Your task to perform on an android device: Is it going to rain this weekend? Image 0: 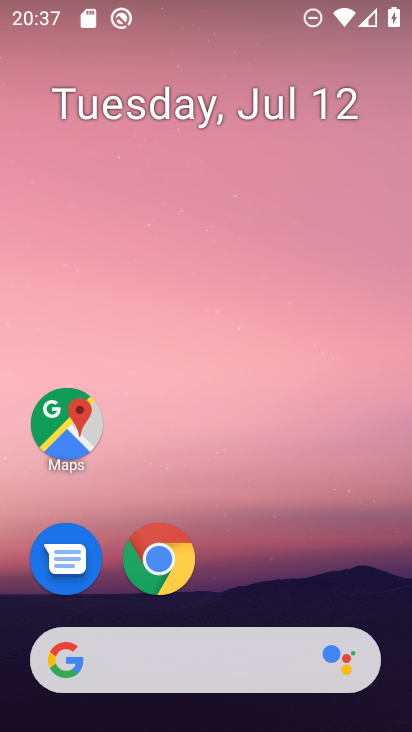
Step 0: click (183, 654)
Your task to perform on an android device: Is it going to rain this weekend? Image 1: 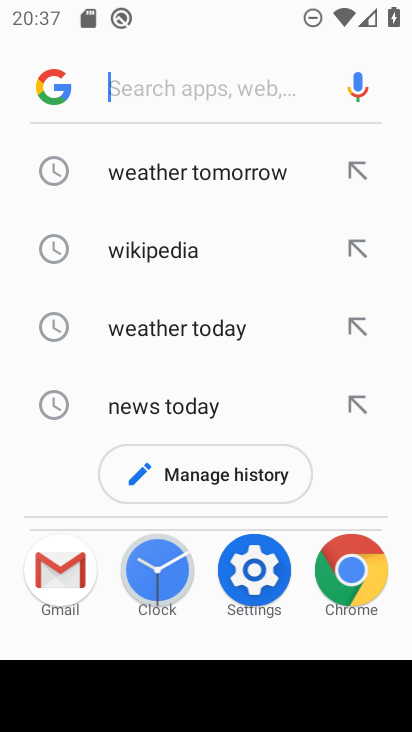
Step 1: type "weather"
Your task to perform on an android device: Is it going to rain this weekend? Image 2: 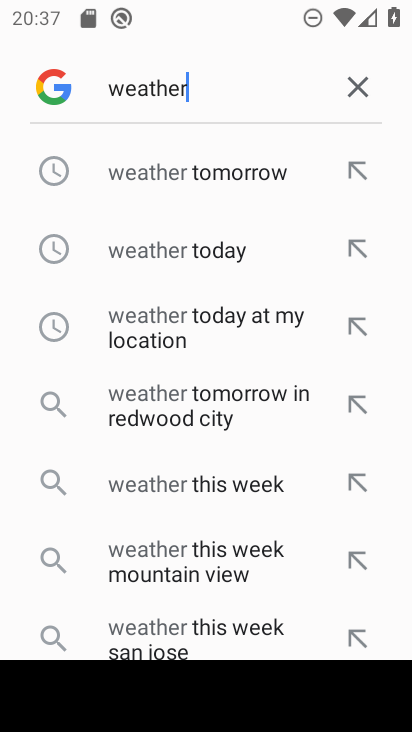
Step 2: click (240, 99)
Your task to perform on an android device: Is it going to rain this weekend? Image 3: 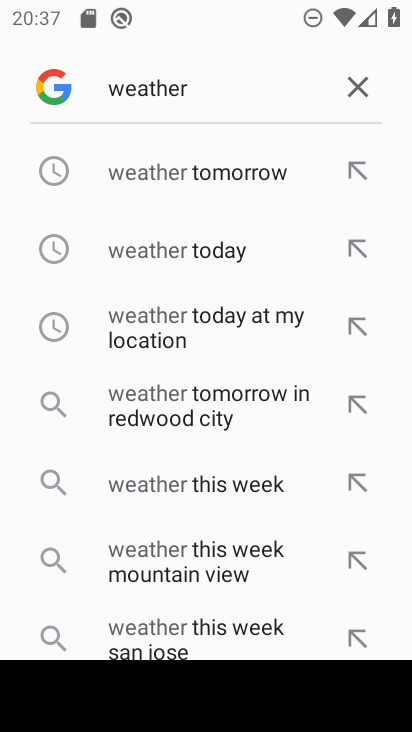
Step 3: type " this weekends"
Your task to perform on an android device: Is it going to rain this weekend? Image 4: 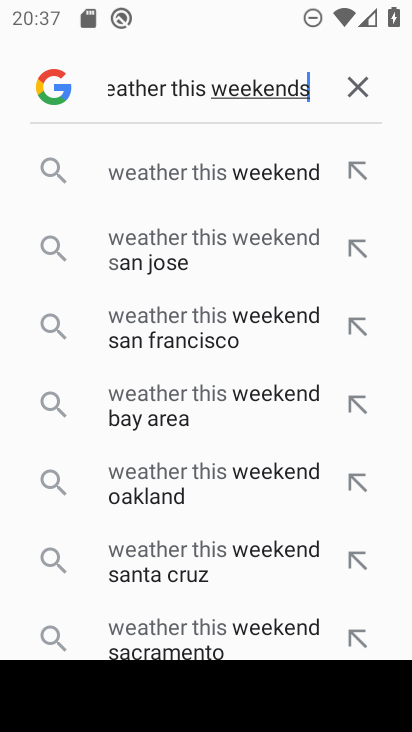
Step 4: click (247, 164)
Your task to perform on an android device: Is it going to rain this weekend? Image 5: 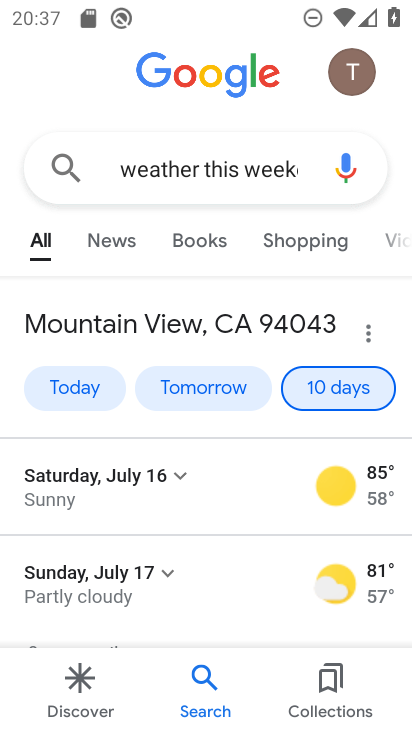
Step 5: task complete